Your task to perform on an android device: Open the Play Movies app and select the watchlist tab. Image 0: 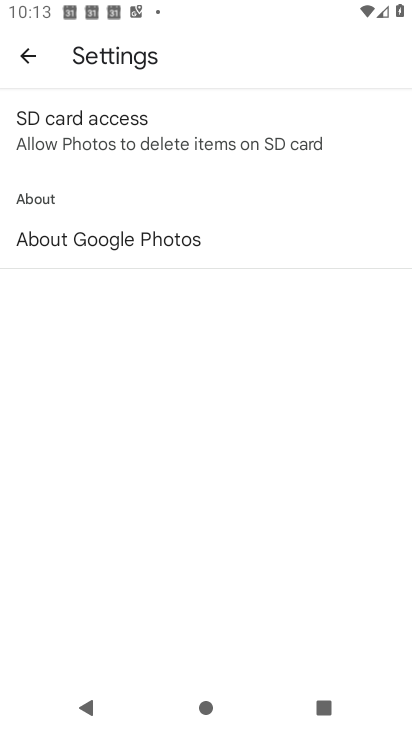
Step 0: press home button
Your task to perform on an android device: Open the Play Movies app and select the watchlist tab. Image 1: 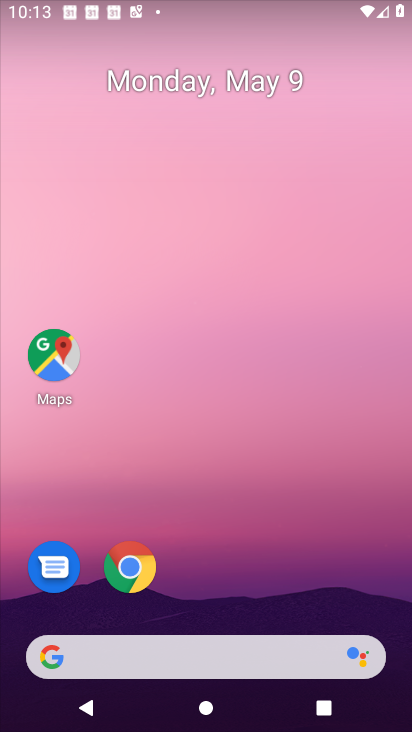
Step 1: drag from (204, 646) to (198, 61)
Your task to perform on an android device: Open the Play Movies app and select the watchlist tab. Image 2: 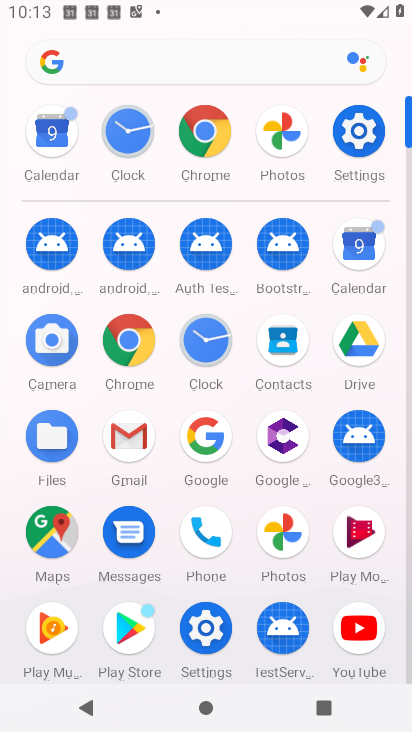
Step 2: click (361, 548)
Your task to perform on an android device: Open the Play Movies app and select the watchlist tab. Image 3: 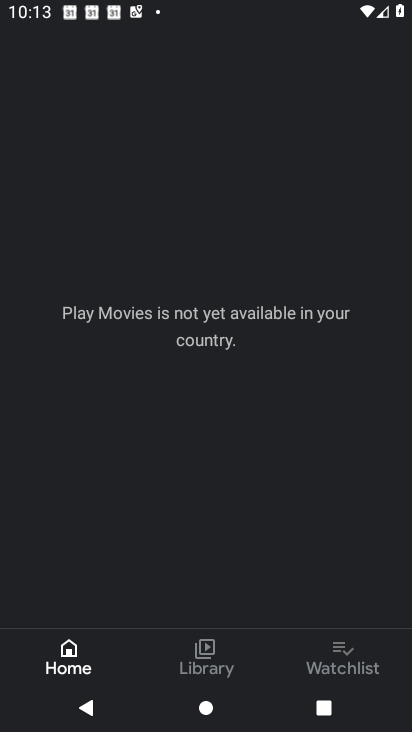
Step 3: click (359, 657)
Your task to perform on an android device: Open the Play Movies app and select the watchlist tab. Image 4: 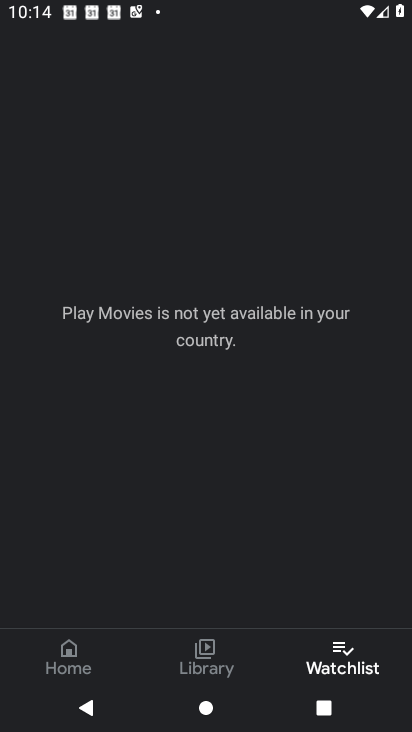
Step 4: task complete